Your task to perform on an android device: Open Chrome and go to the settings page Image 0: 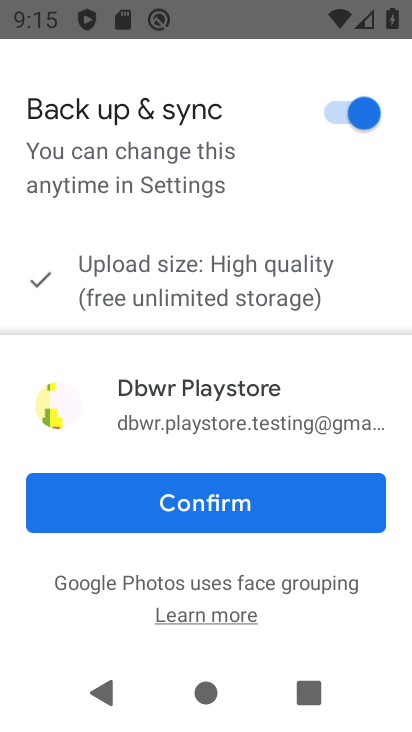
Step 0: press home button
Your task to perform on an android device: Open Chrome and go to the settings page Image 1: 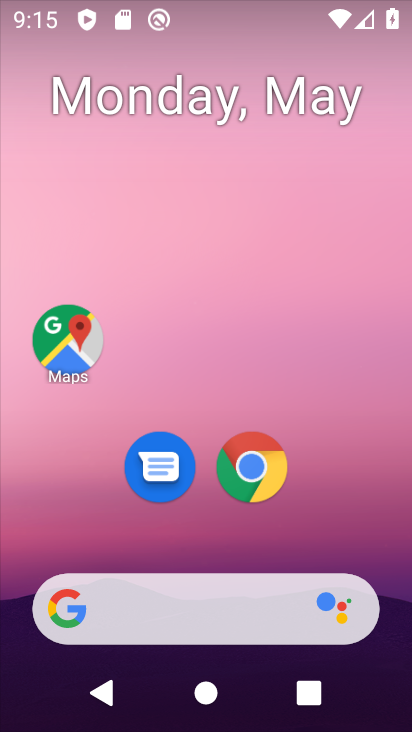
Step 1: click (251, 466)
Your task to perform on an android device: Open Chrome and go to the settings page Image 2: 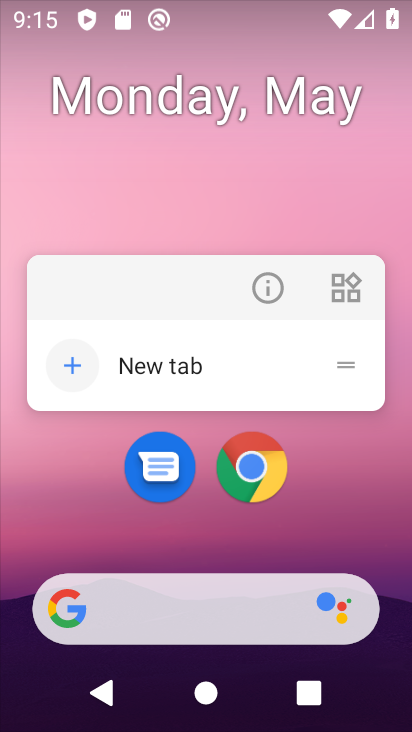
Step 2: click (253, 465)
Your task to perform on an android device: Open Chrome and go to the settings page Image 3: 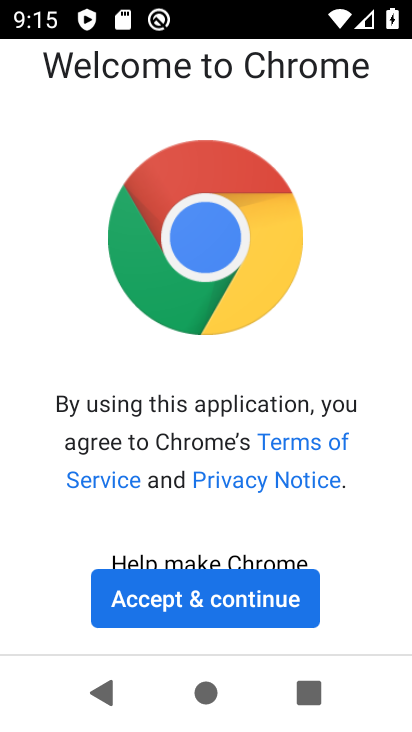
Step 3: click (246, 621)
Your task to perform on an android device: Open Chrome and go to the settings page Image 4: 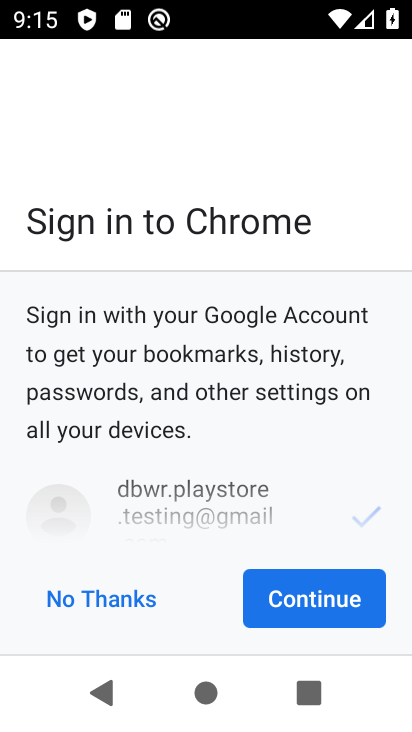
Step 4: click (307, 604)
Your task to perform on an android device: Open Chrome and go to the settings page Image 5: 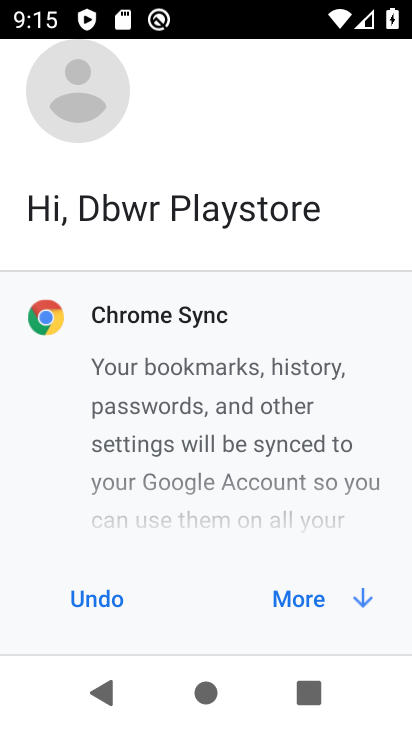
Step 5: click (307, 604)
Your task to perform on an android device: Open Chrome and go to the settings page Image 6: 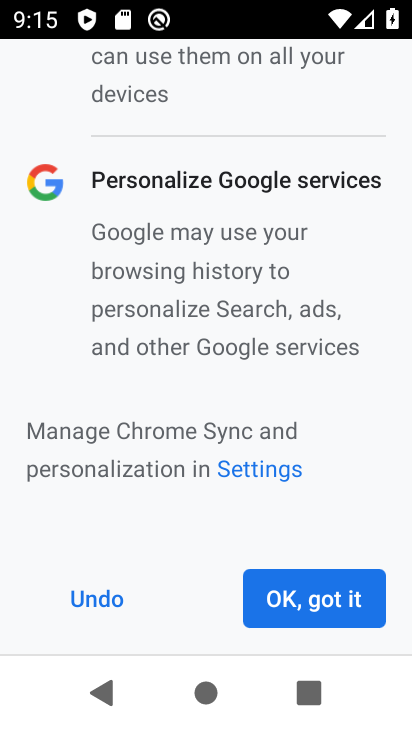
Step 6: click (307, 604)
Your task to perform on an android device: Open Chrome and go to the settings page Image 7: 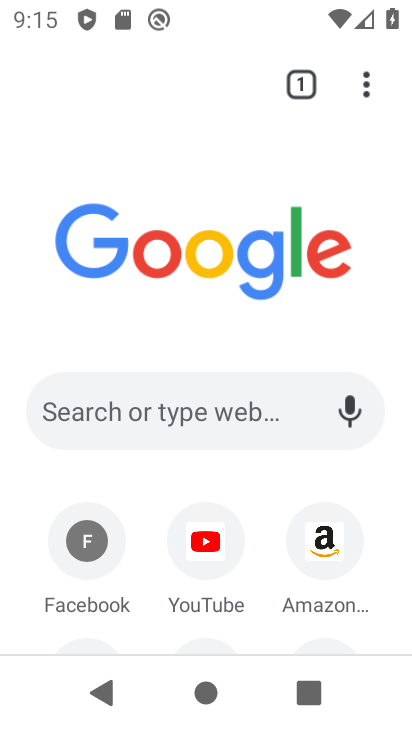
Step 7: task complete